Your task to perform on an android device: Open Youtube and go to the subscriptions tab Image 0: 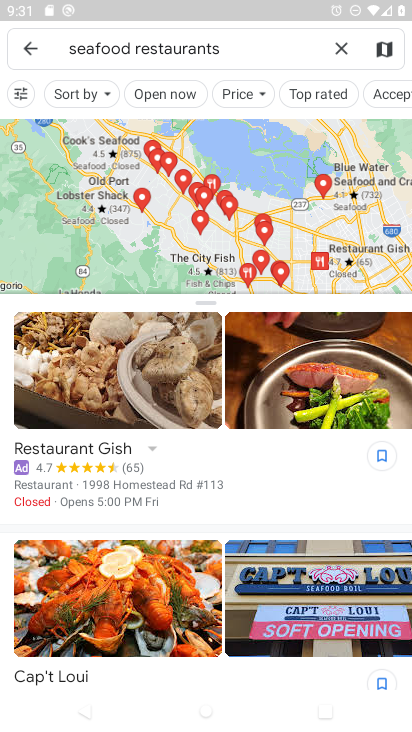
Step 0: press home button
Your task to perform on an android device: Open Youtube and go to the subscriptions tab Image 1: 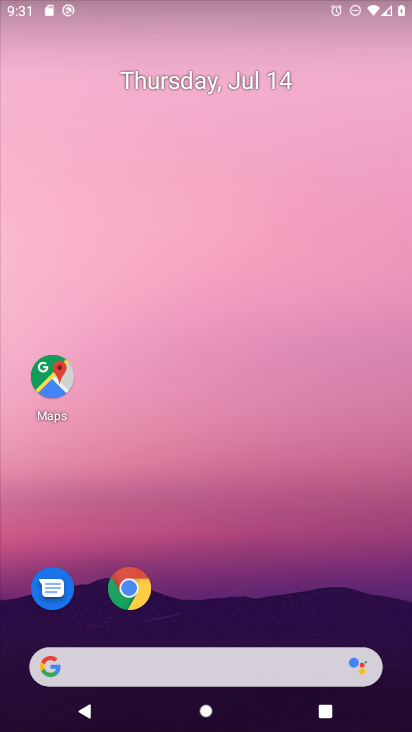
Step 1: drag from (240, 581) to (181, 95)
Your task to perform on an android device: Open Youtube and go to the subscriptions tab Image 2: 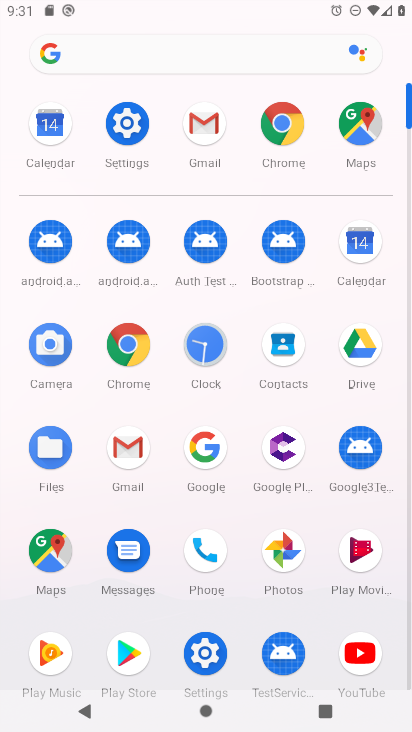
Step 2: click (357, 651)
Your task to perform on an android device: Open Youtube and go to the subscriptions tab Image 3: 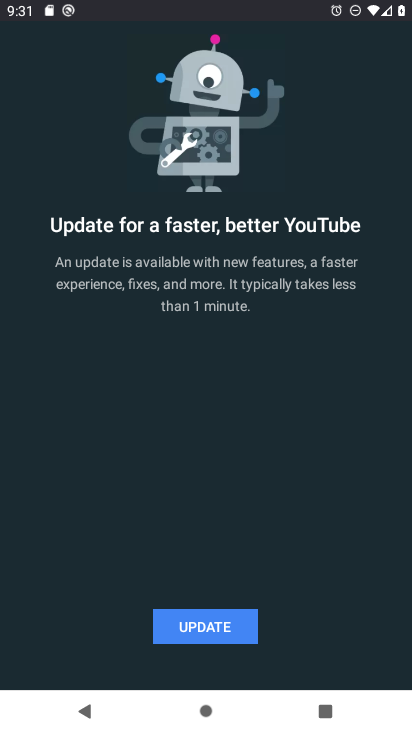
Step 3: click (229, 615)
Your task to perform on an android device: Open Youtube and go to the subscriptions tab Image 4: 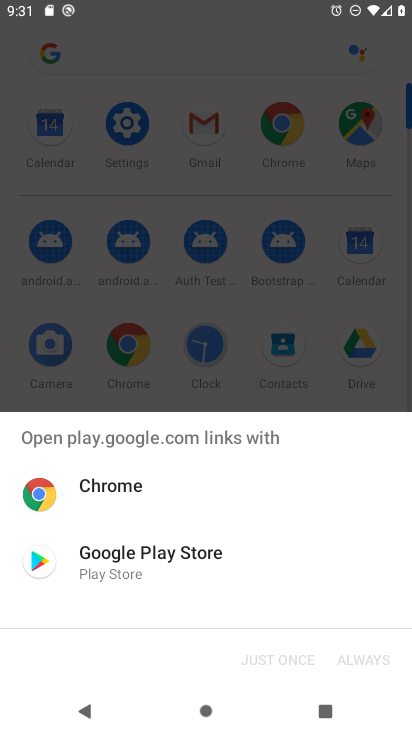
Step 4: click (168, 549)
Your task to perform on an android device: Open Youtube and go to the subscriptions tab Image 5: 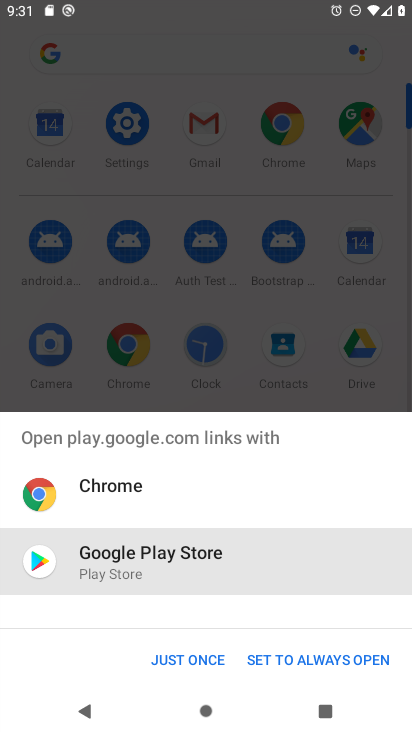
Step 5: click (196, 657)
Your task to perform on an android device: Open Youtube and go to the subscriptions tab Image 6: 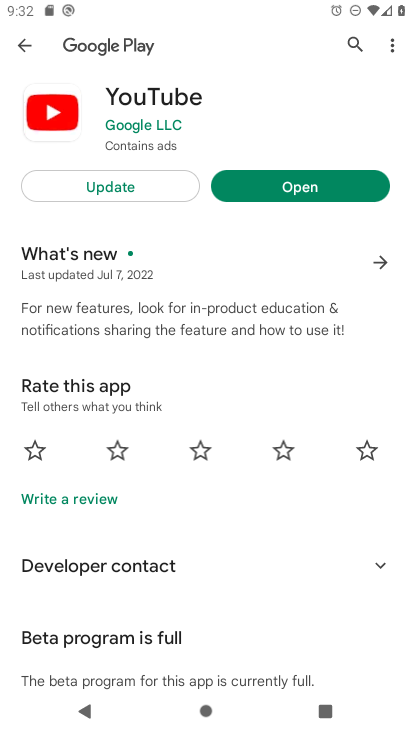
Step 6: click (93, 191)
Your task to perform on an android device: Open Youtube and go to the subscriptions tab Image 7: 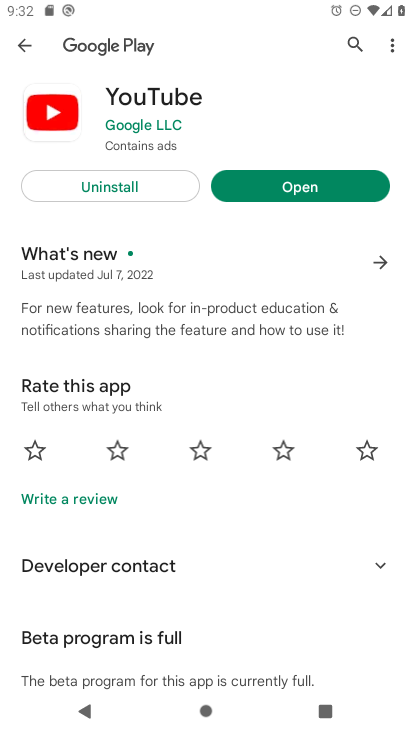
Step 7: click (258, 183)
Your task to perform on an android device: Open Youtube and go to the subscriptions tab Image 8: 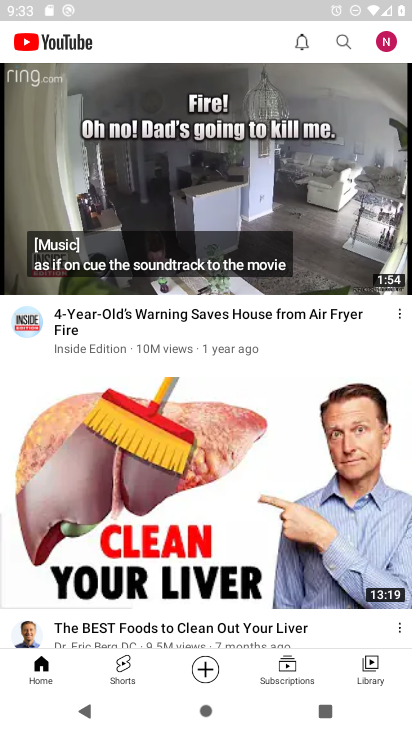
Step 8: click (278, 672)
Your task to perform on an android device: Open Youtube and go to the subscriptions tab Image 9: 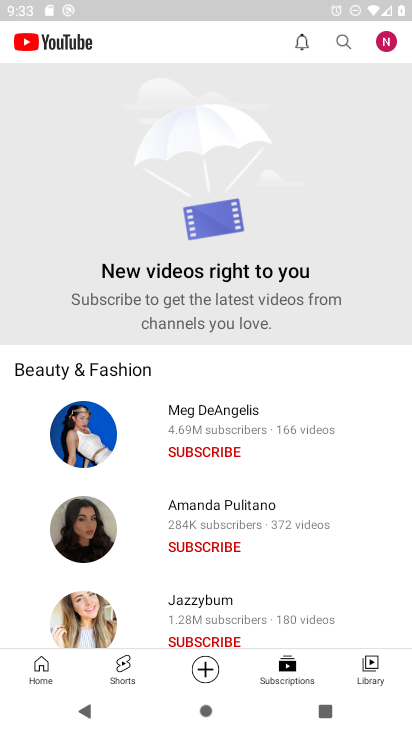
Step 9: task complete